Your task to perform on an android device: Show me the alarms in the clock app Image 0: 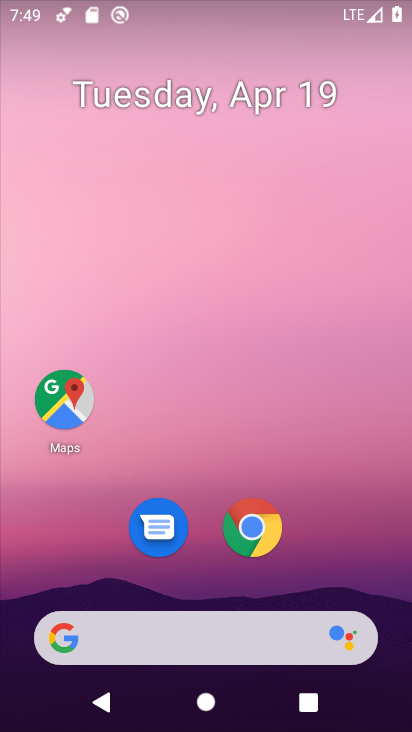
Step 0: drag from (360, 562) to (374, 176)
Your task to perform on an android device: Show me the alarms in the clock app Image 1: 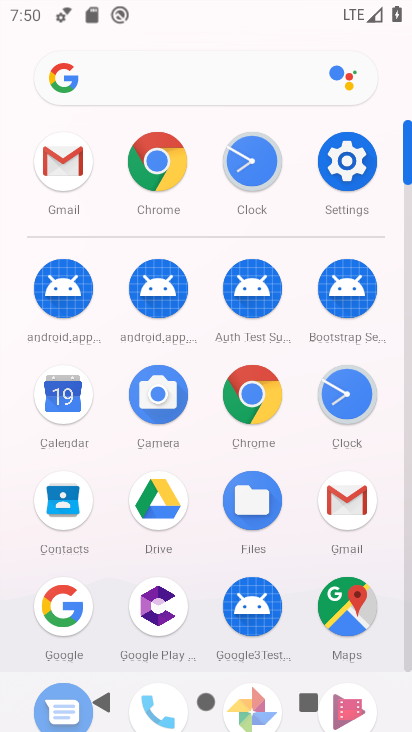
Step 1: click (356, 403)
Your task to perform on an android device: Show me the alarms in the clock app Image 2: 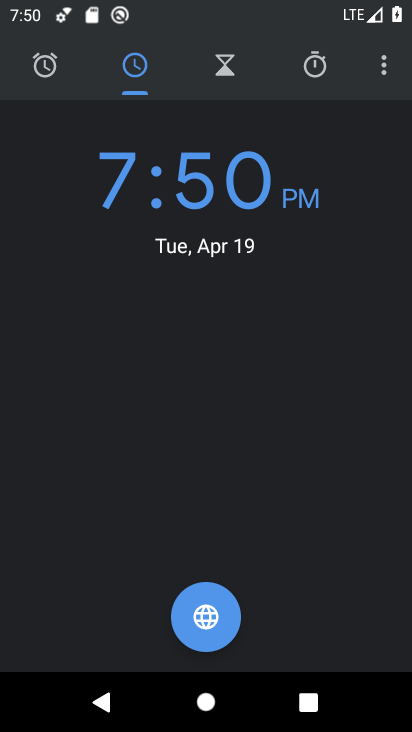
Step 2: click (40, 54)
Your task to perform on an android device: Show me the alarms in the clock app Image 3: 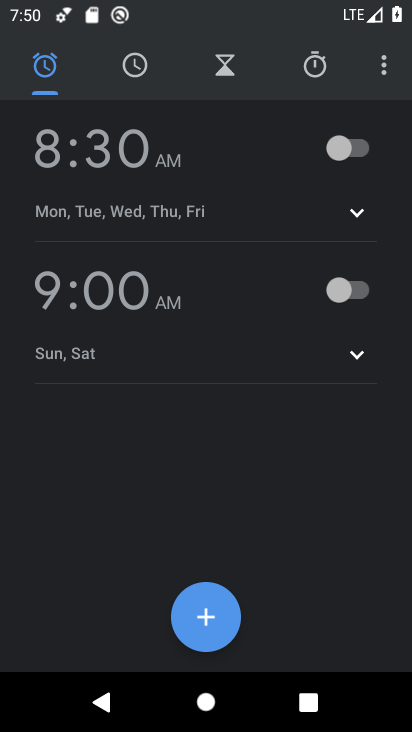
Step 3: task complete